Your task to perform on an android device: open app "Skype" Image 0: 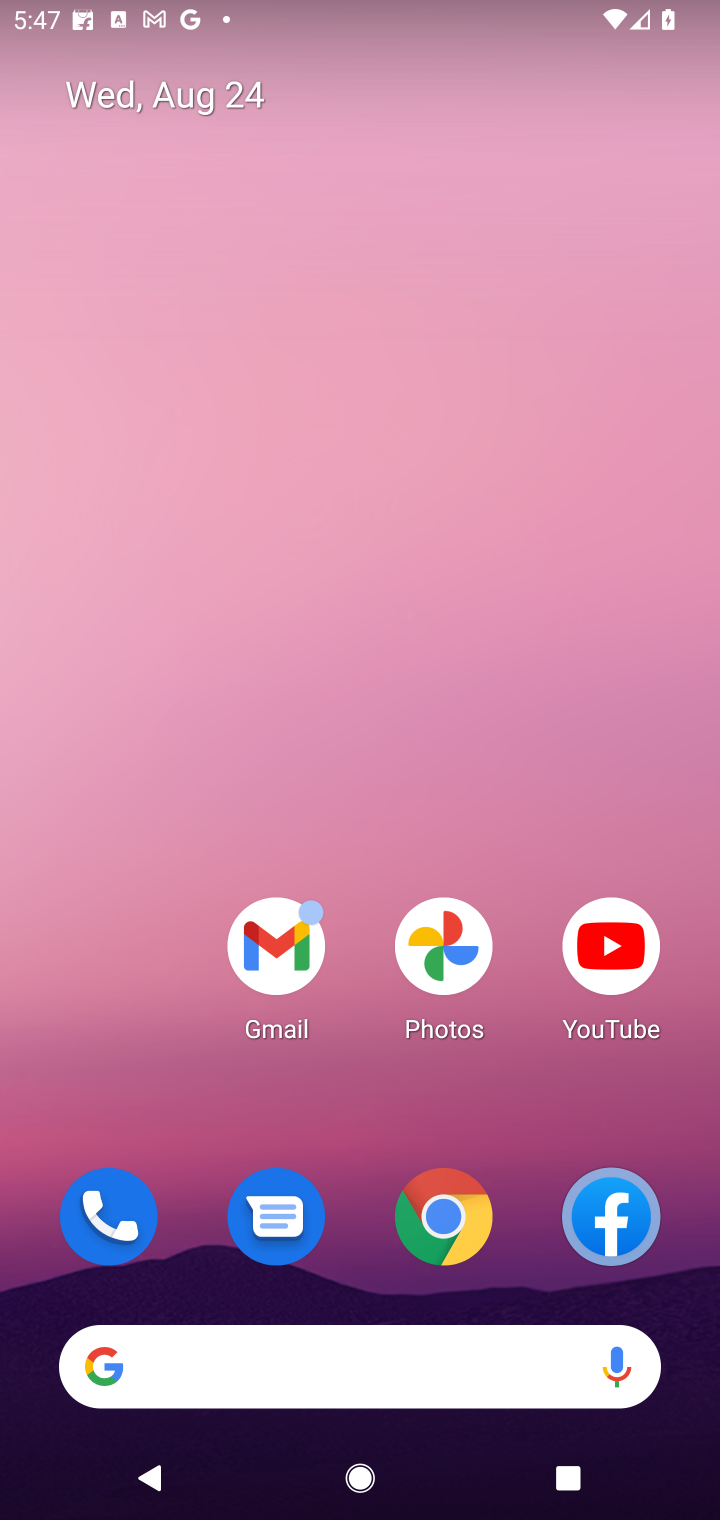
Step 0: drag from (305, 1119) to (370, 48)
Your task to perform on an android device: open app "Skype" Image 1: 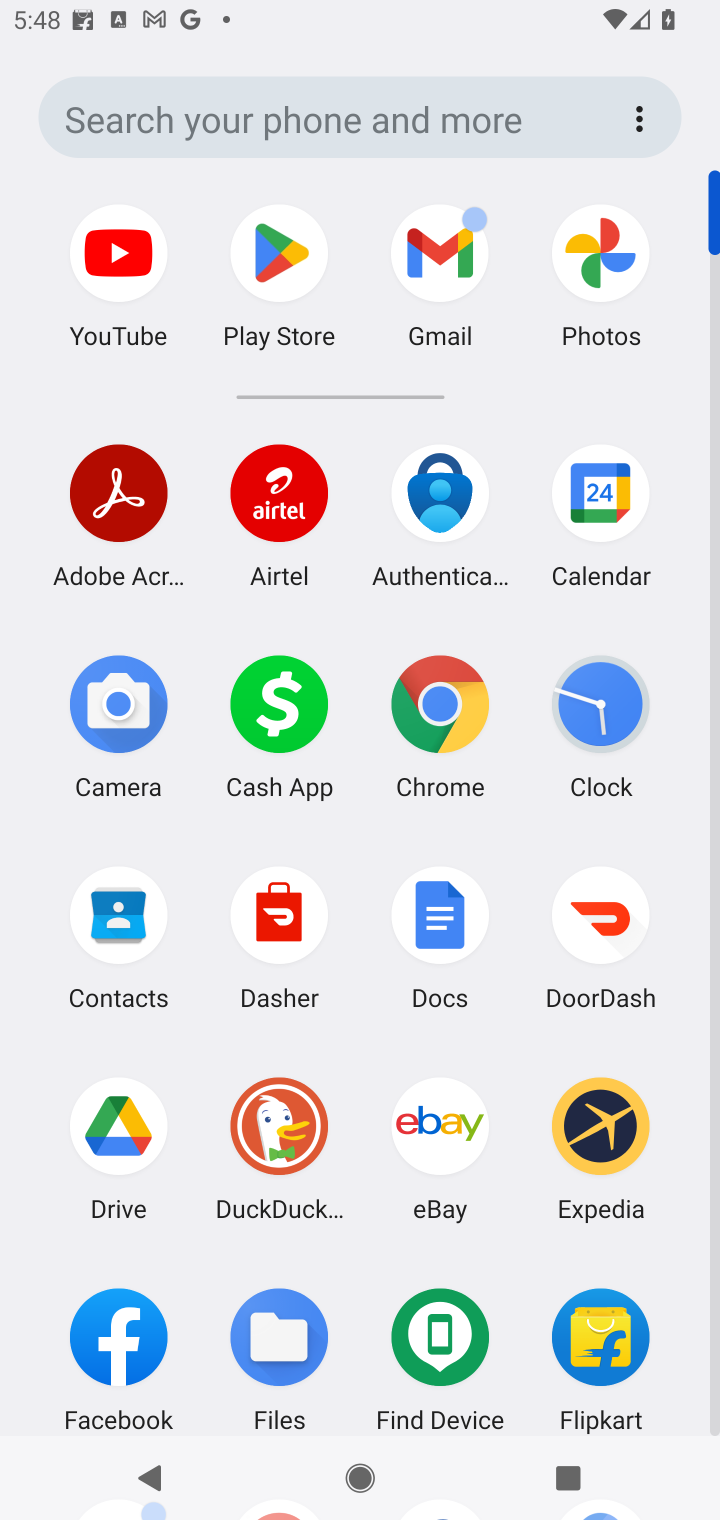
Step 1: click (247, 242)
Your task to perform on an android device: open app "Skype" Image 2: 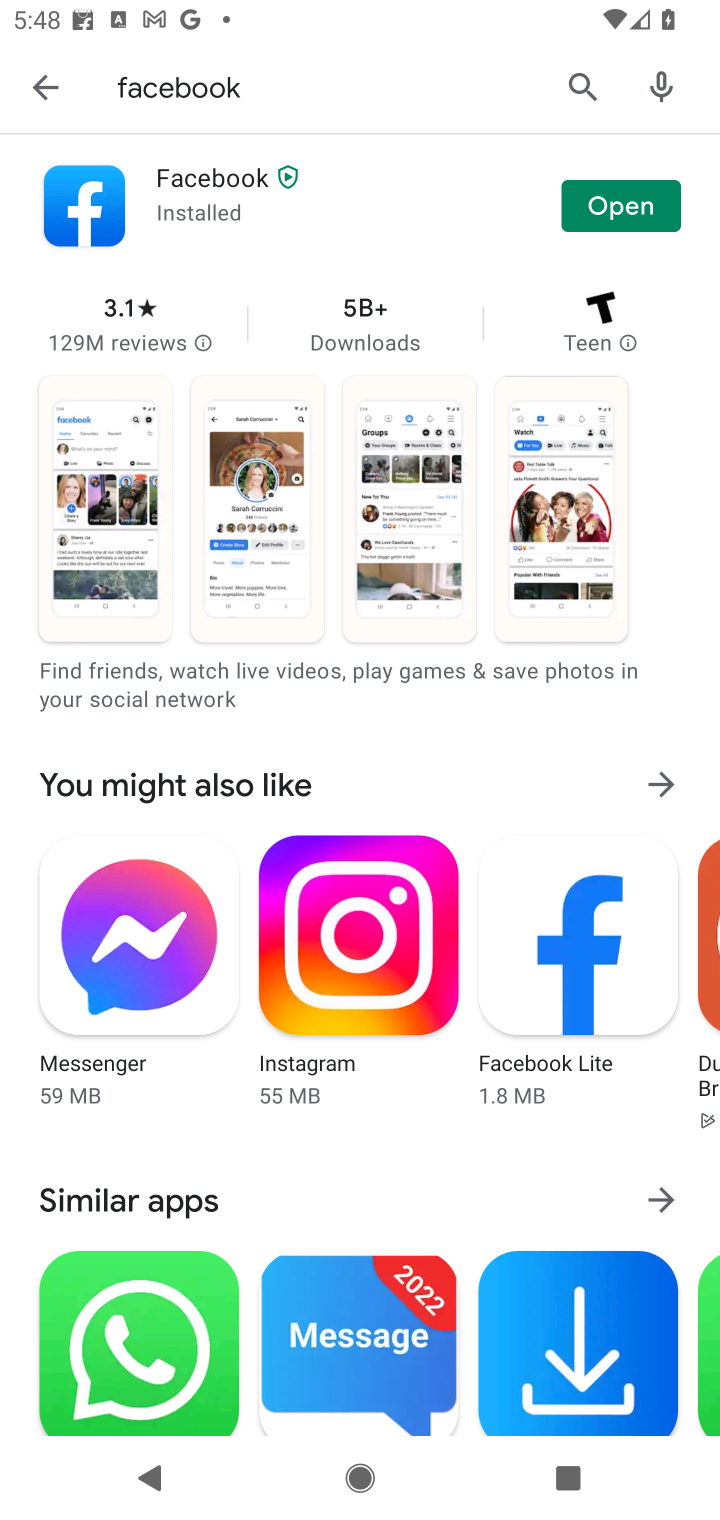
Step 2: click (583, 80)
Your task to perform on an android device: open app "Skype" Image 3: 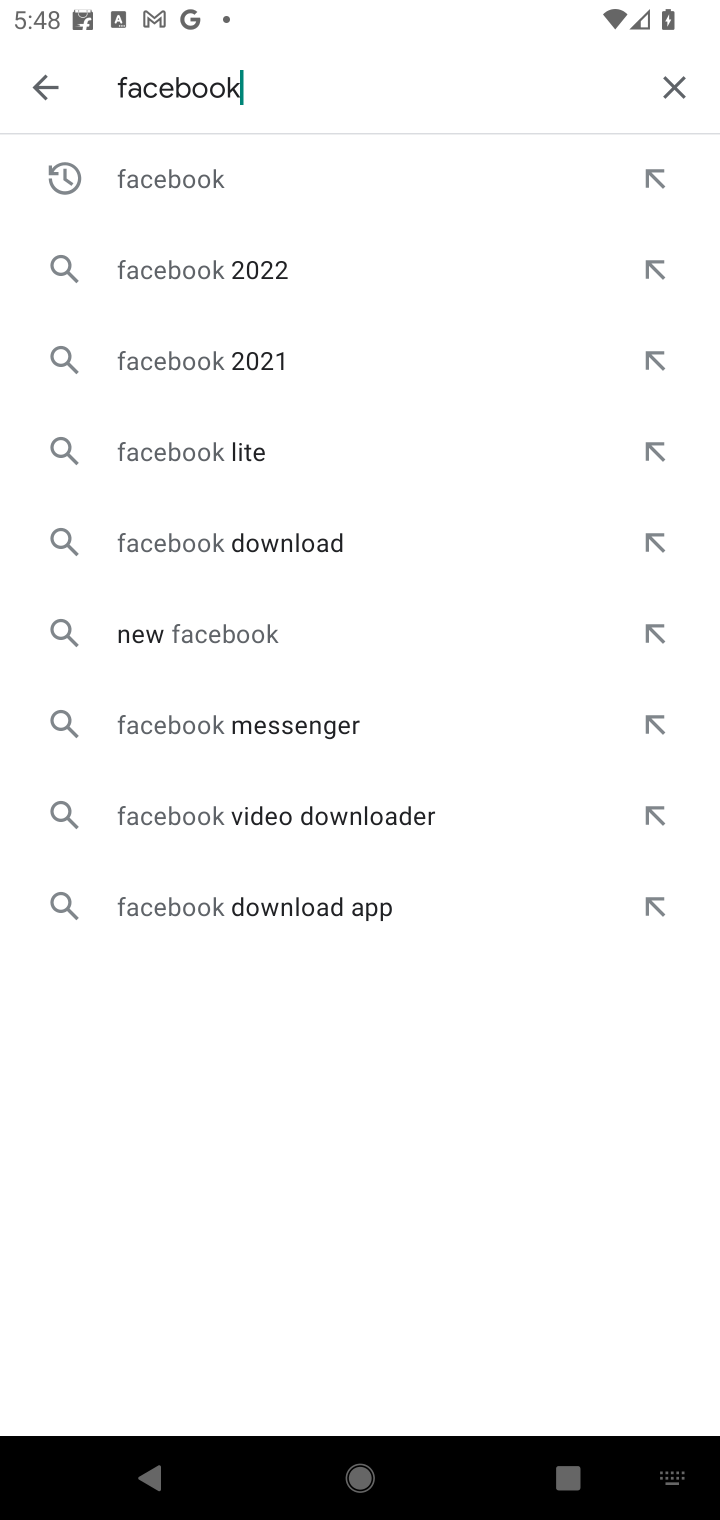
Step 3: click (672, 75)
Your task to perform on an android device: open app "Skype" Image 4: 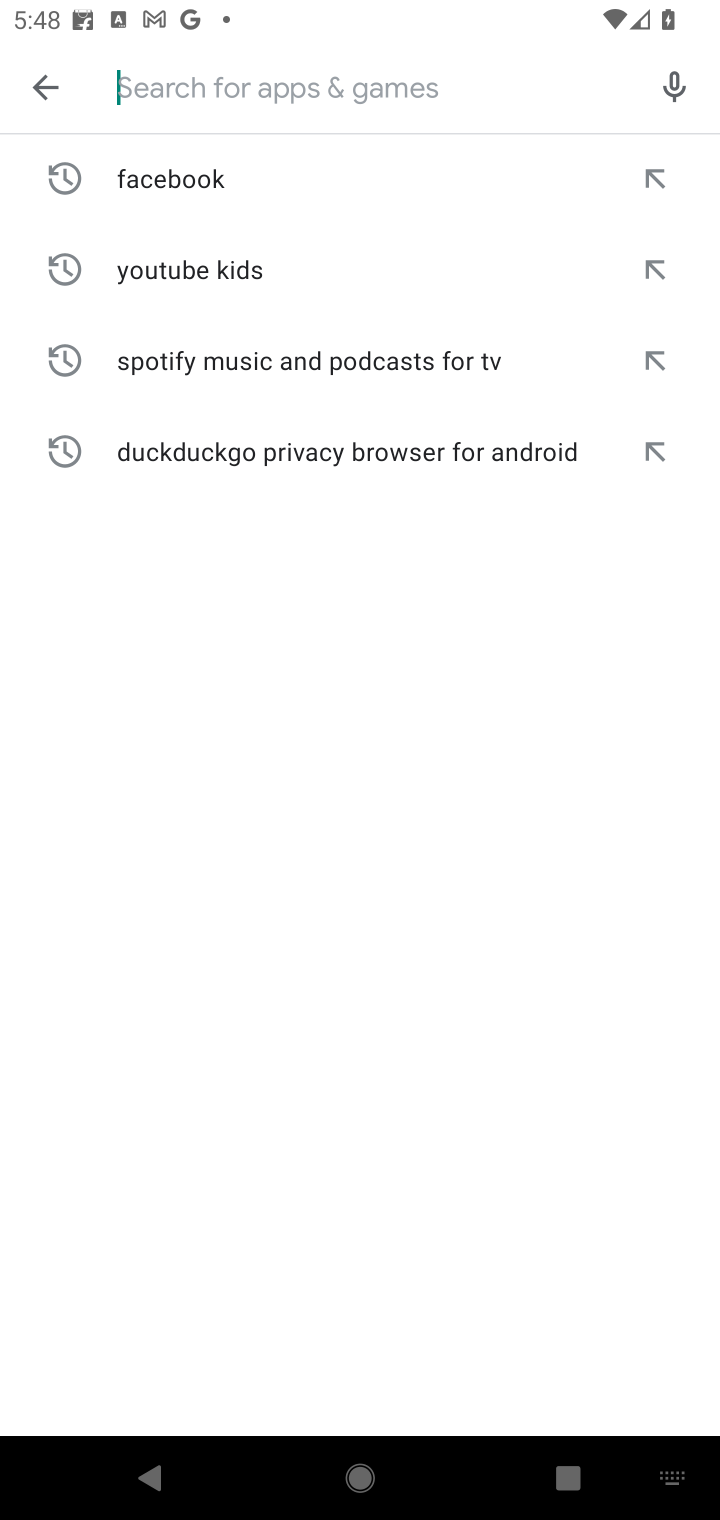
Step 4: type "Skype"
Your task to perform on an android device: open app "Skype" Image 5: 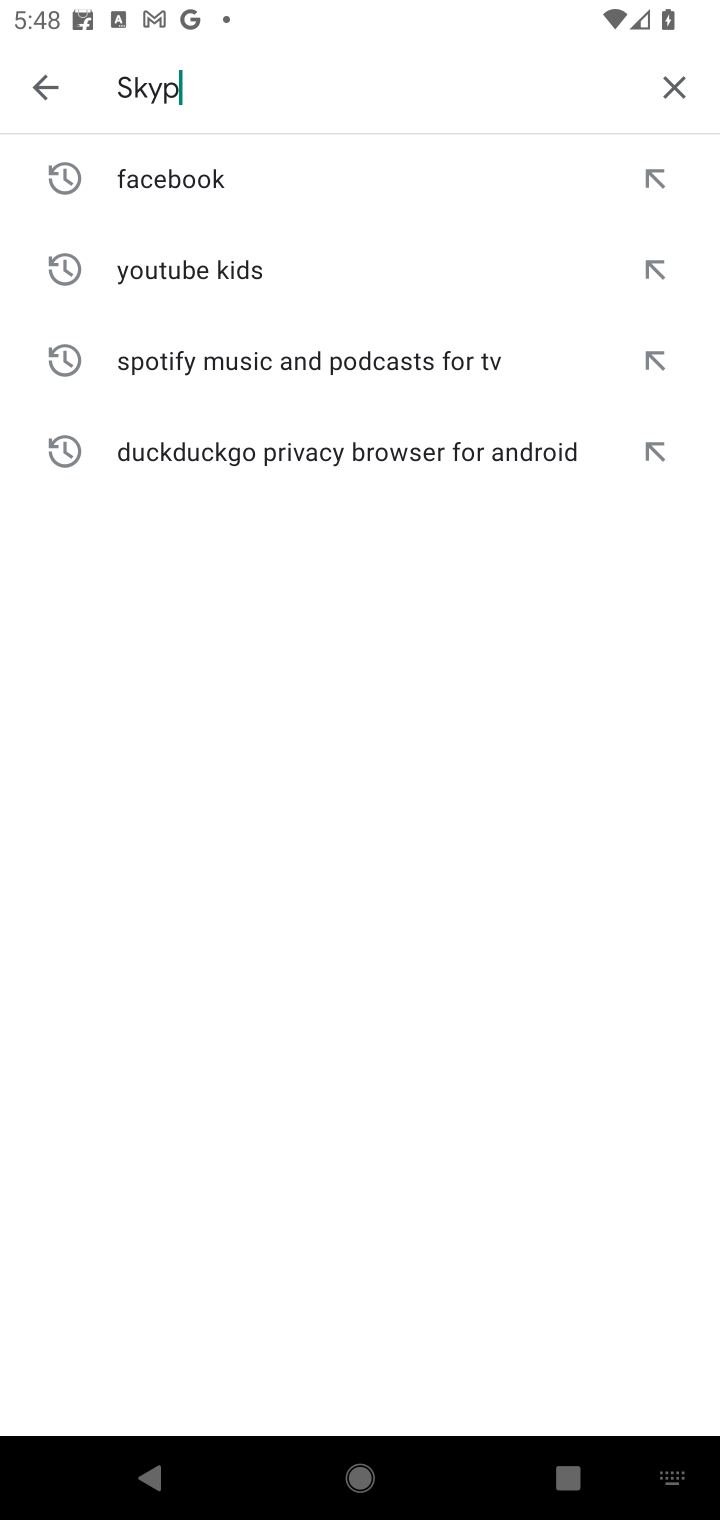
Step 5: type ""
Your task to perform on an android device: open app "Skype" Image 6: 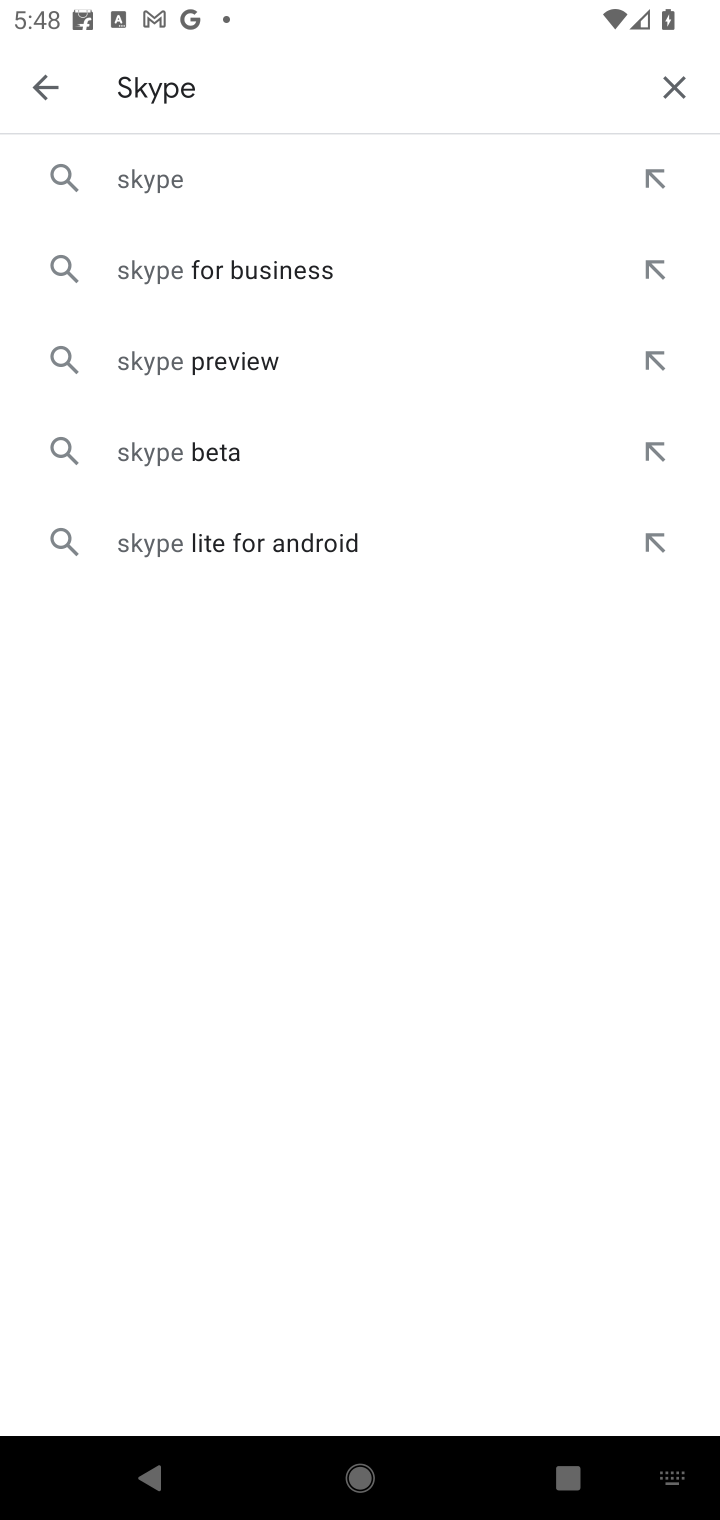
Step 6: click (116, 180)
Your task to perform on an android device: open app "Skype" Image 7: 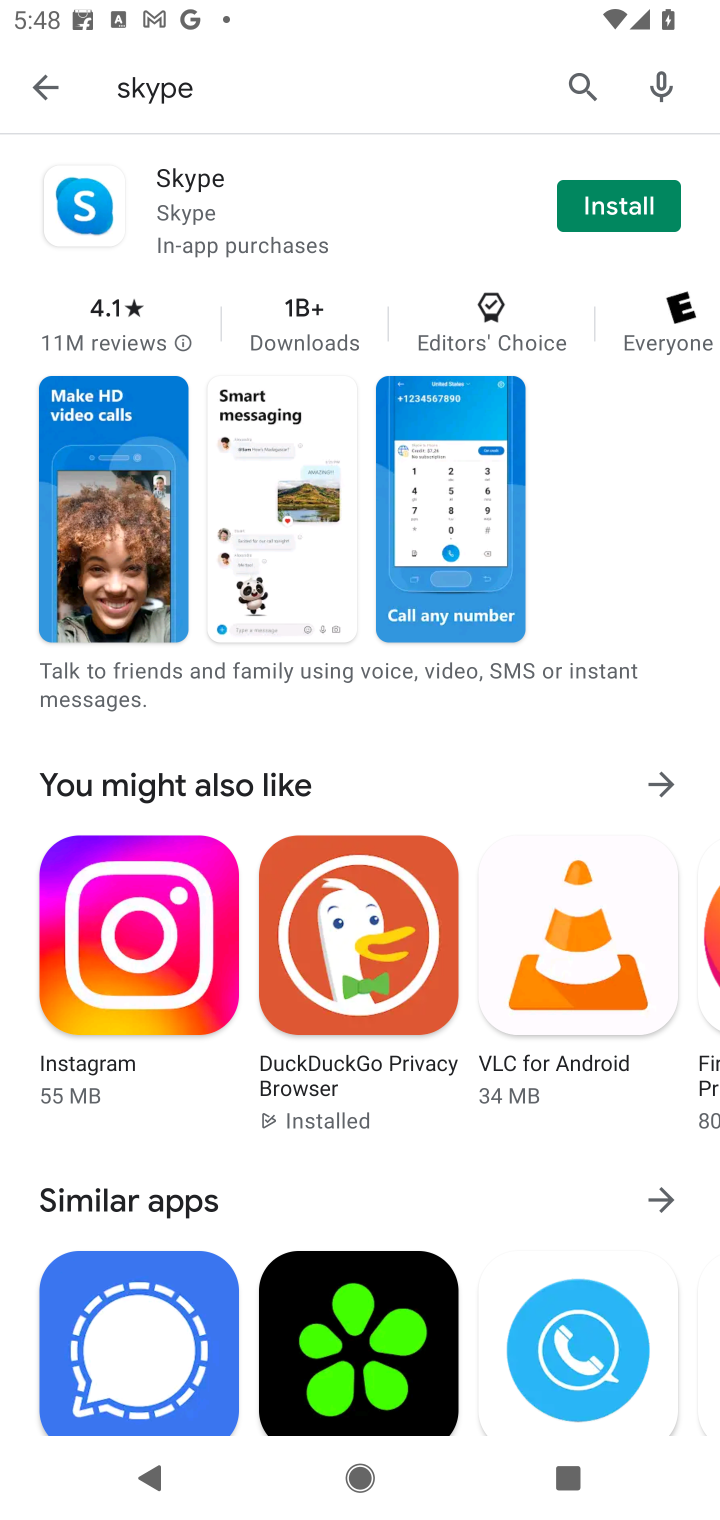
Step 7: click (227, 208)
Your task to perform on an android device: open app "Skype" Image 8: 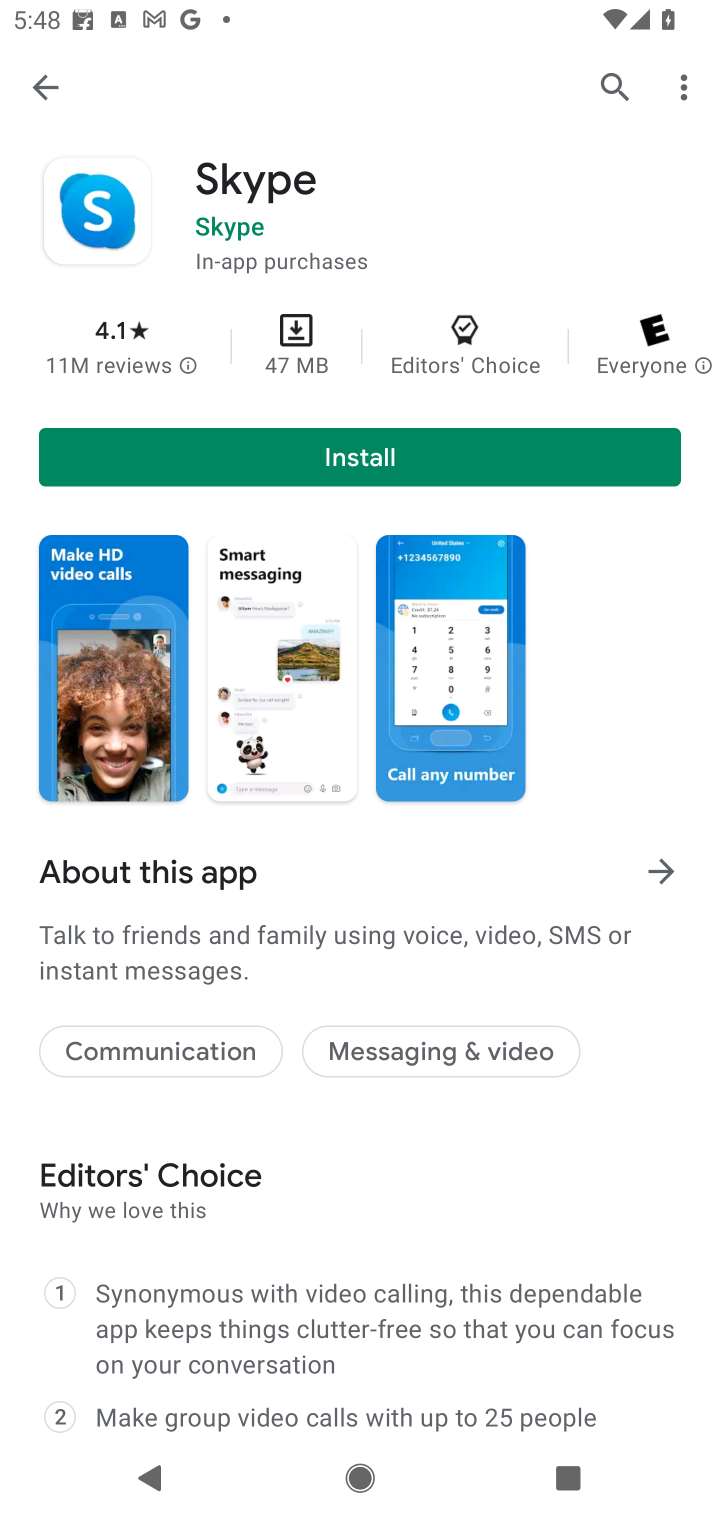
Step 8: task complete